Your task to perform on an android device: Open calendar and show me the fourth week of next month Image 0: 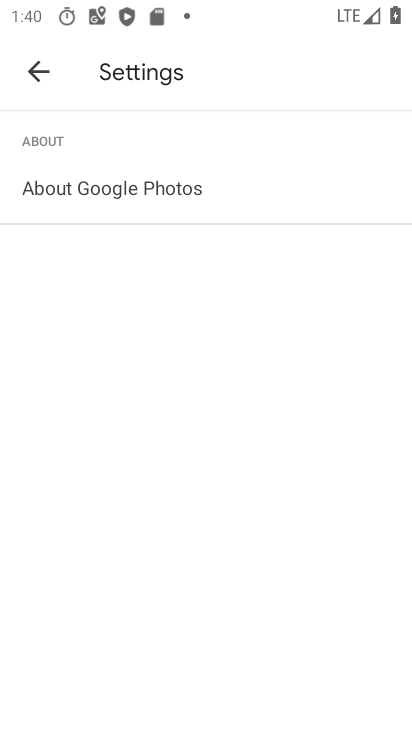
Step 0: press home button
Your task to perform on an android device: Open calendar and show me the fourth week of next month Image 1: 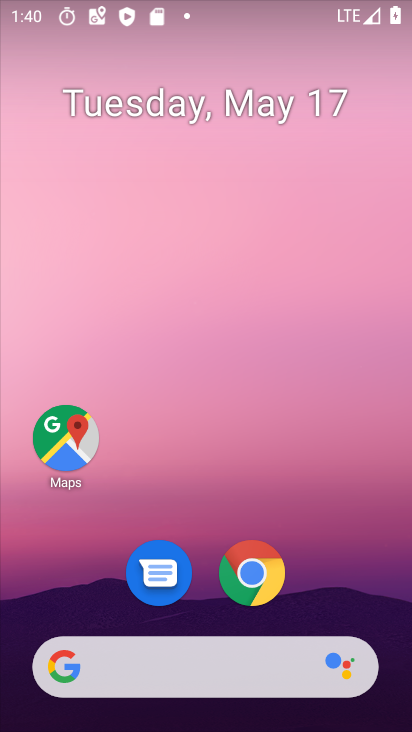
Step 1: drag from (156, 713) to (199, 5)
Your task to perform on an android device: Open calendar and show me the fourth week of next month Image 2: 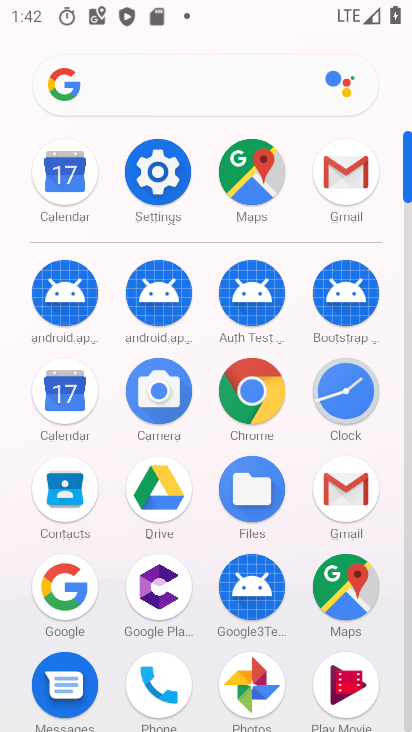
Step 2: click (67, 404)
Your task to perform on an android device: Open calendar and show me the fourth week of next month Image 3: 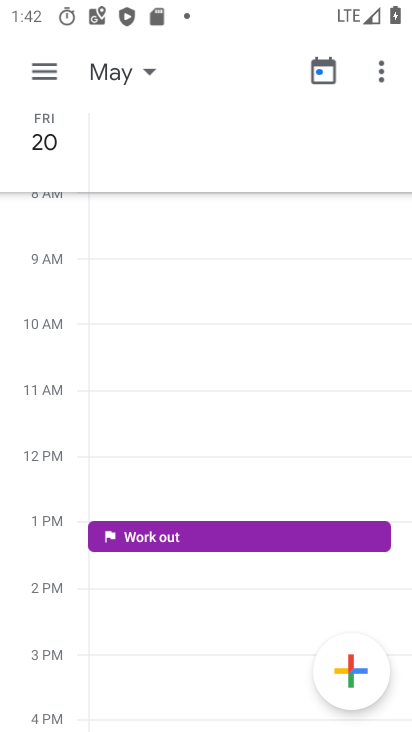
Step 3: click (105, 75)
Your task to perform on an android device: Open calendar and show me the fourth week of next month Image 4: 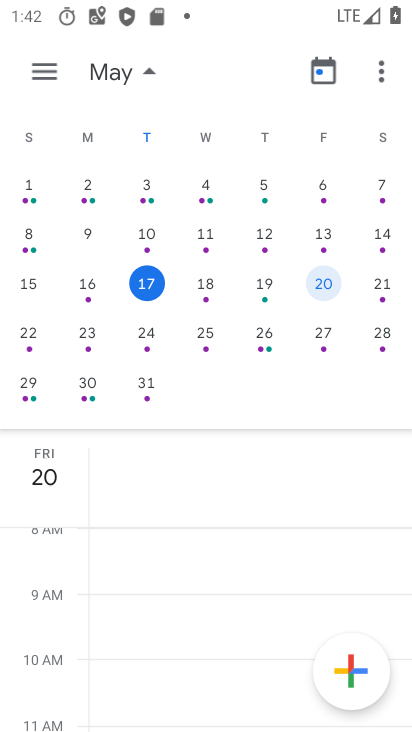
Step 4: drag from (188, 221) to (24, 215)
Your task to perform on an android device: Open calendar and show me the fourth week of next month Image 5: 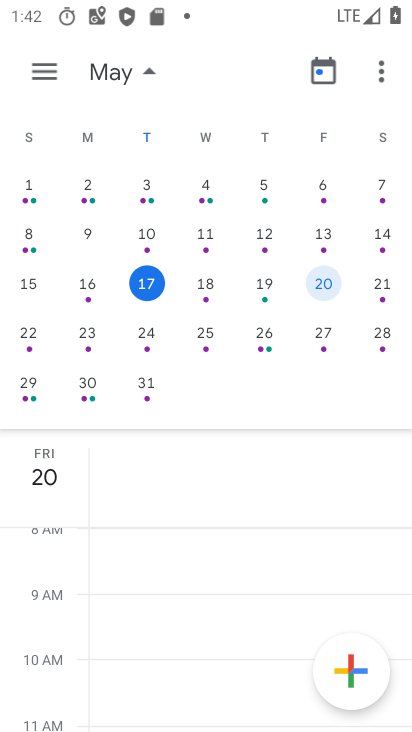
Step 5: drag from (330, 231) to (132, 242)
Your task to perform on an android device: Open calendar and show me the fourth week of next month Image 6: 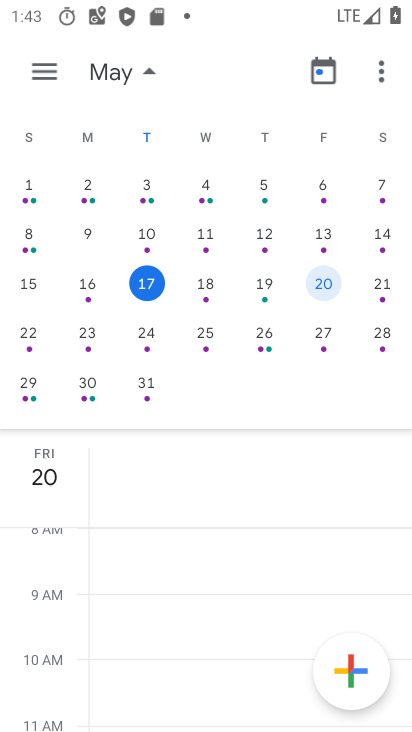
Step 6: drag from (373, 215) to (50, 244)
Your task to perform on an android device: Open calendar and show me the fourth week of next month Image 7: 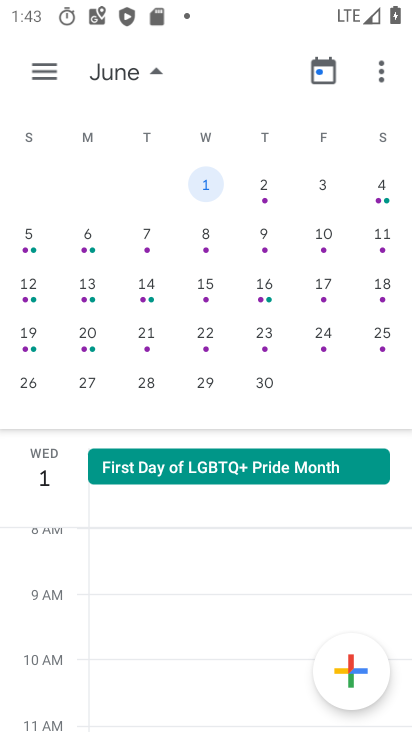
Step 7: click (30, 333)
Your task to perform on an android device: Open calendar and show me the fourth week of next month Image 8: 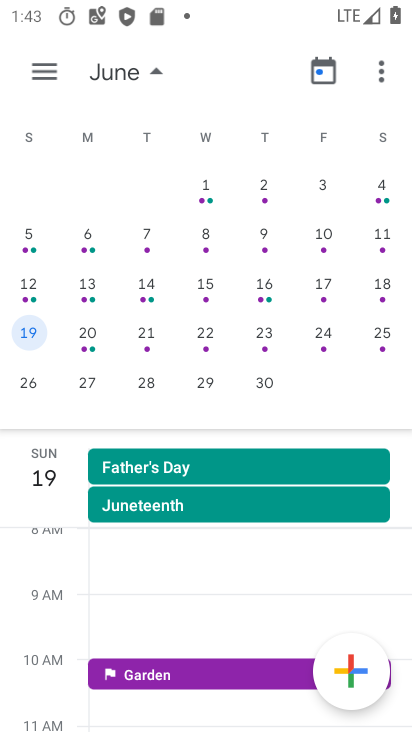
Step 8: task complete